Your task to perform on an android device: Check the weather Image 0: 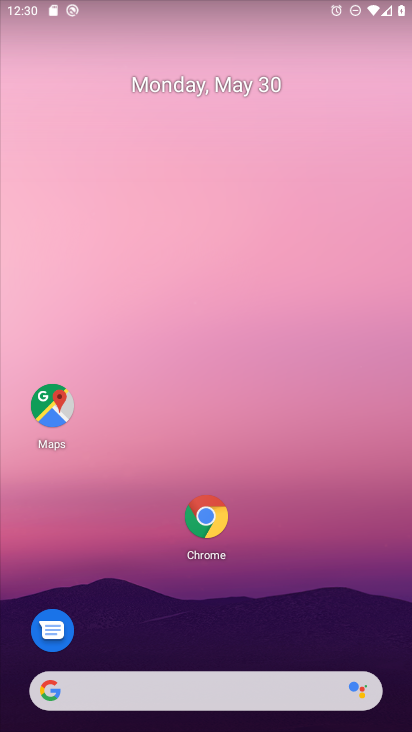
Step 0: press home button
Your task to perform on an android device: Check the weather Image 1: 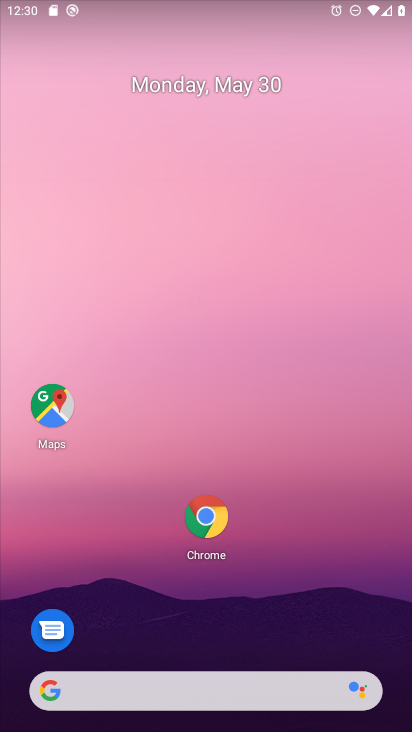
Step 1: click (50, 688)
Your task to perform on an android device: Check the weather Image 2: 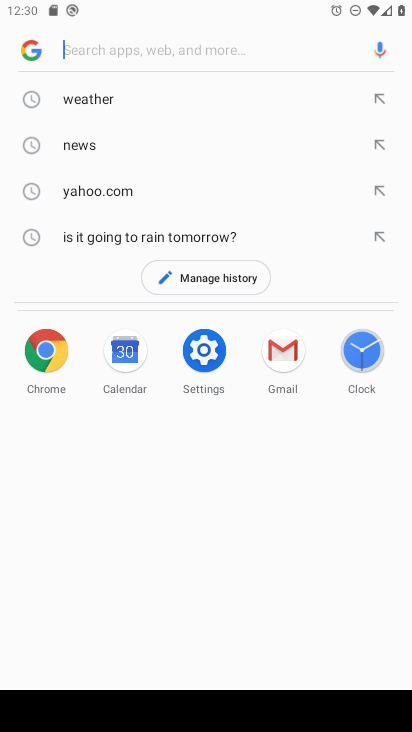
Step 2: click (113, 96)
Your task to perform on an android device: Check the weather Image 3: 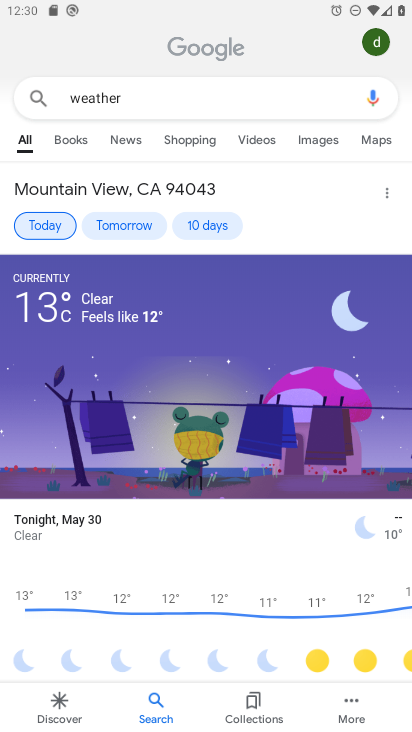
Step 3: task complete